Your task to perform on an android device: open a bookmark in the chrome app Image 0: 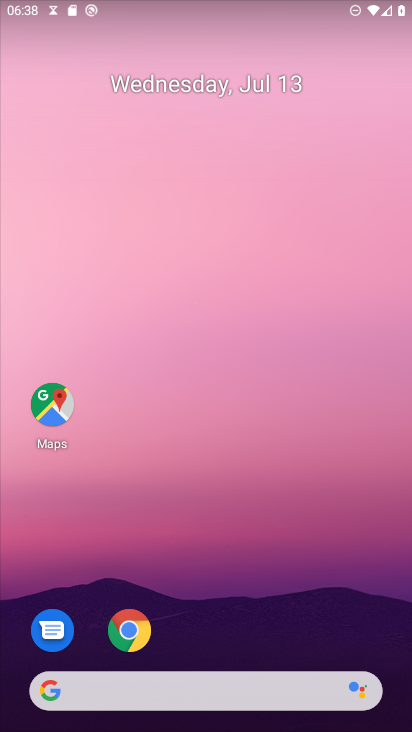
Step 0: drag from (289, 679) to (302, 14)
Your task to perform on an android device: open a bookmark in the chrome app Image 1: 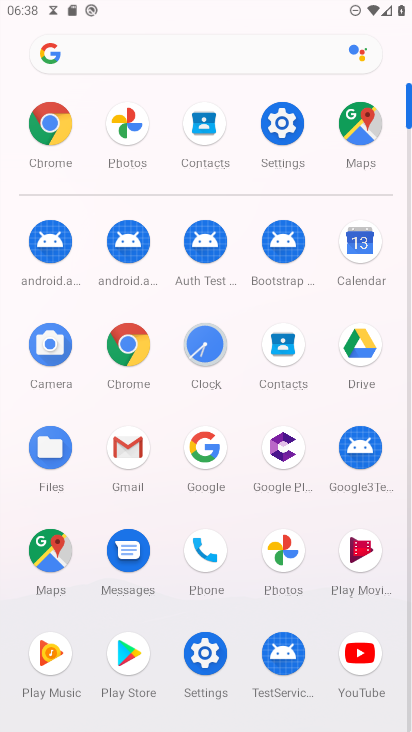
Step 1: click (121, 336)
Your task to perform on an android device: open a bookmark in the chrome app Image 2: 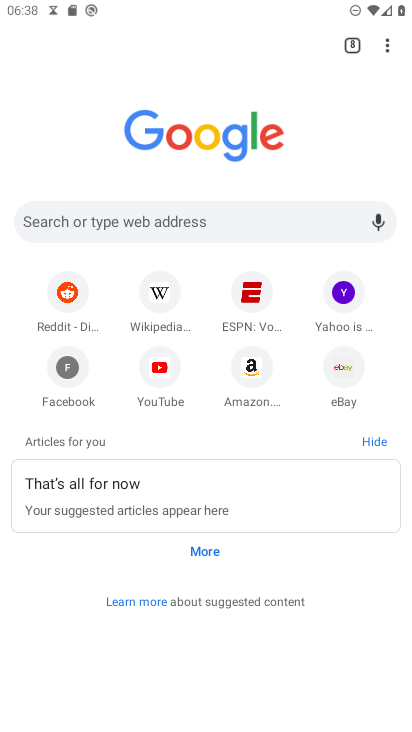
Step 2: task complete